Your task to perform on an android device: What is the price of a 12' ladder at Lowes? Image 0: 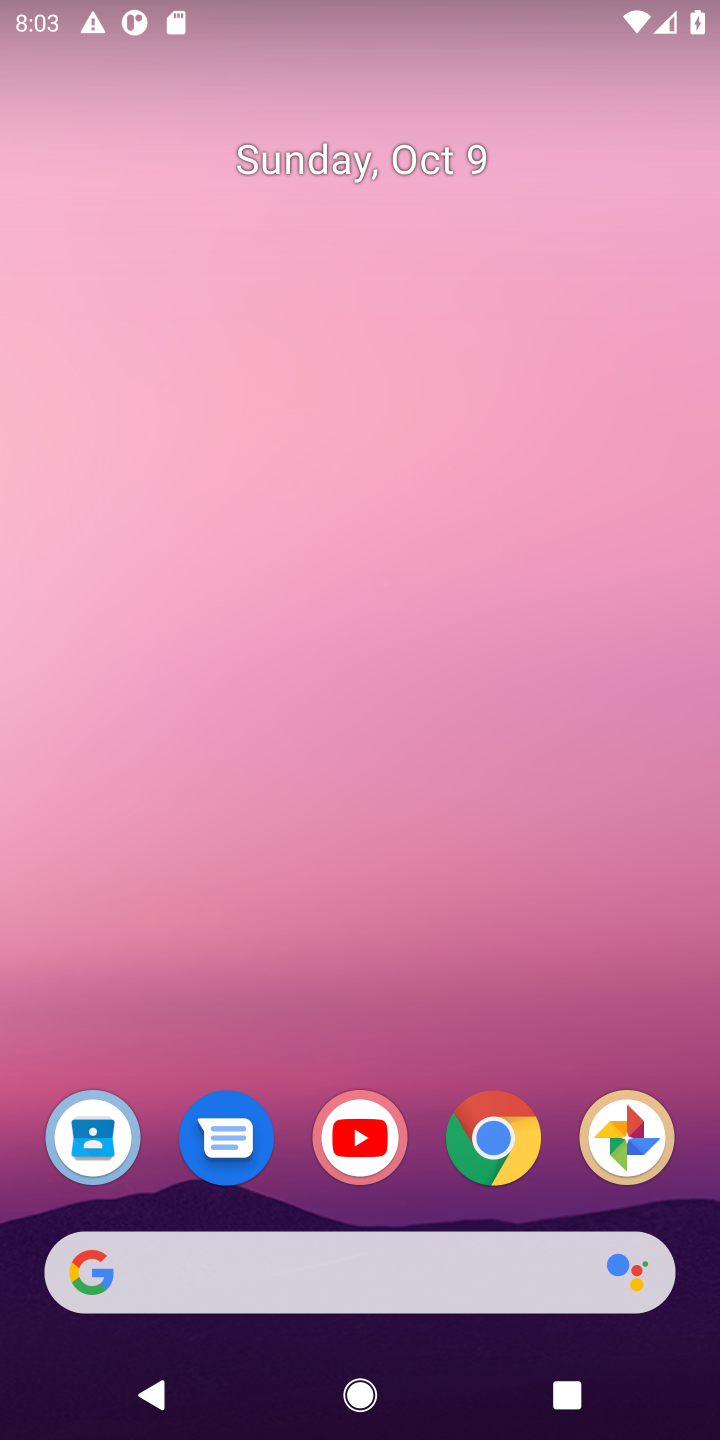
Step 0: drag from (348, 1257) to (456, 325)
Your task to perform on an android device: What is the price of a 12' ladder at Lowes? Image 1: 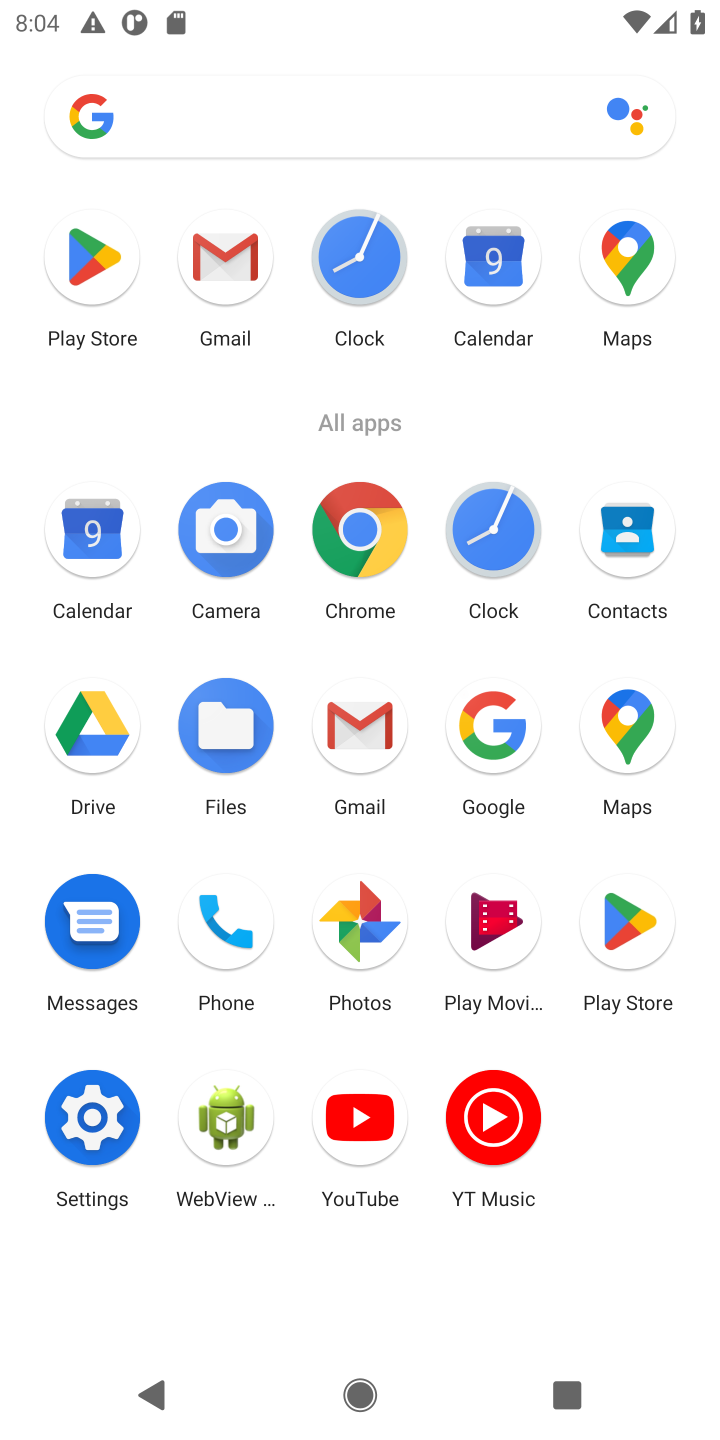
Step 1: click (489, 717)
Your task to perform on an android device: What is the price of a 12' ladder at Lowes? Image 2: 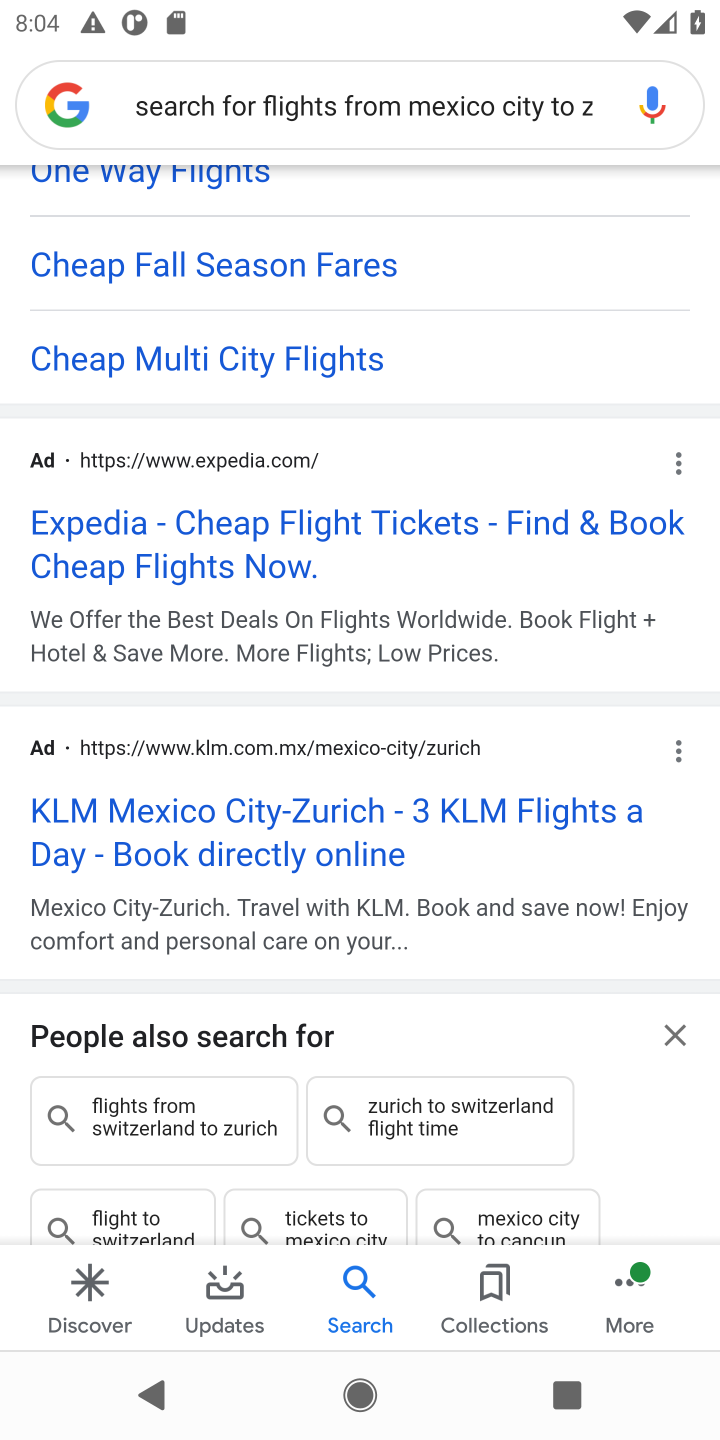
Step 2: click (515, 83)
Your task to perform on an android device: What is the price of a 12' ladder at Lowes? Image 3: 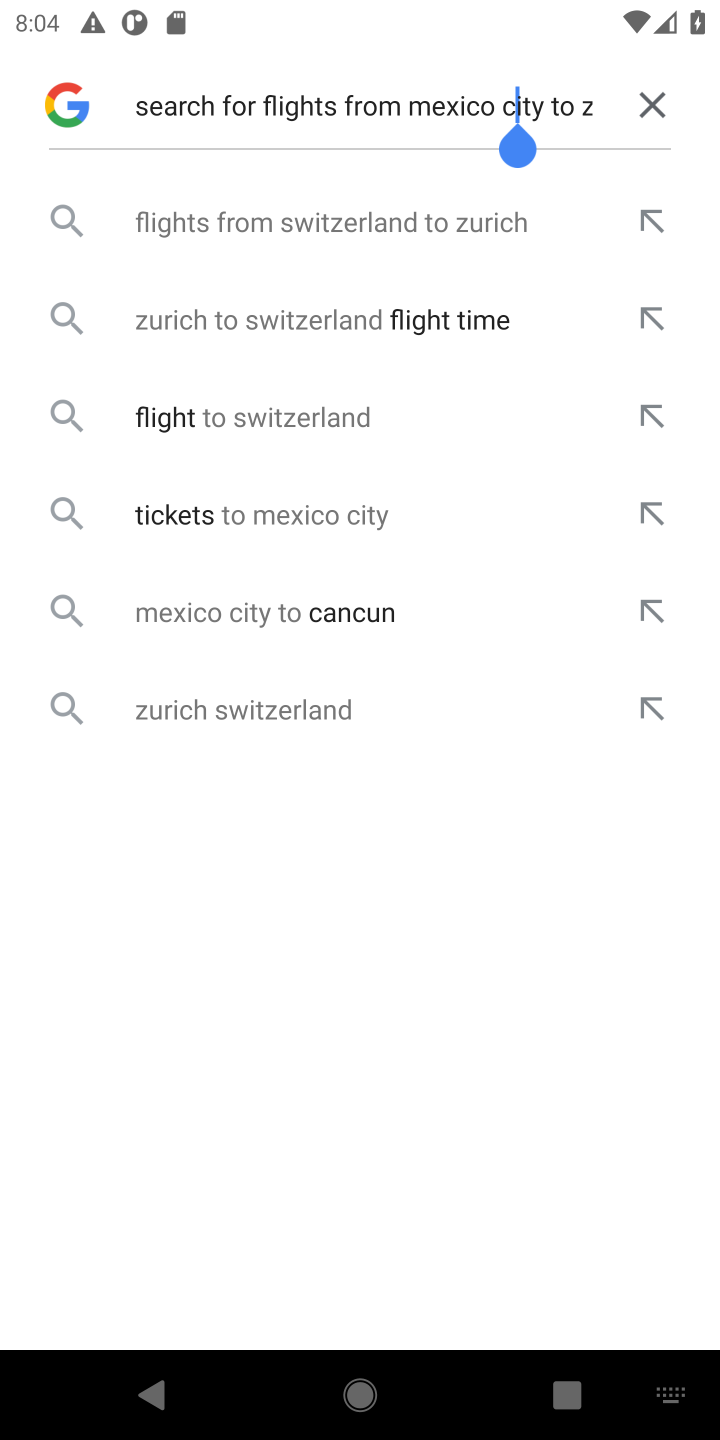
Step 3: click (640, 102)
Your task to perform on an android device: What is the price of a 12' ladder at Lowes? Image 4: 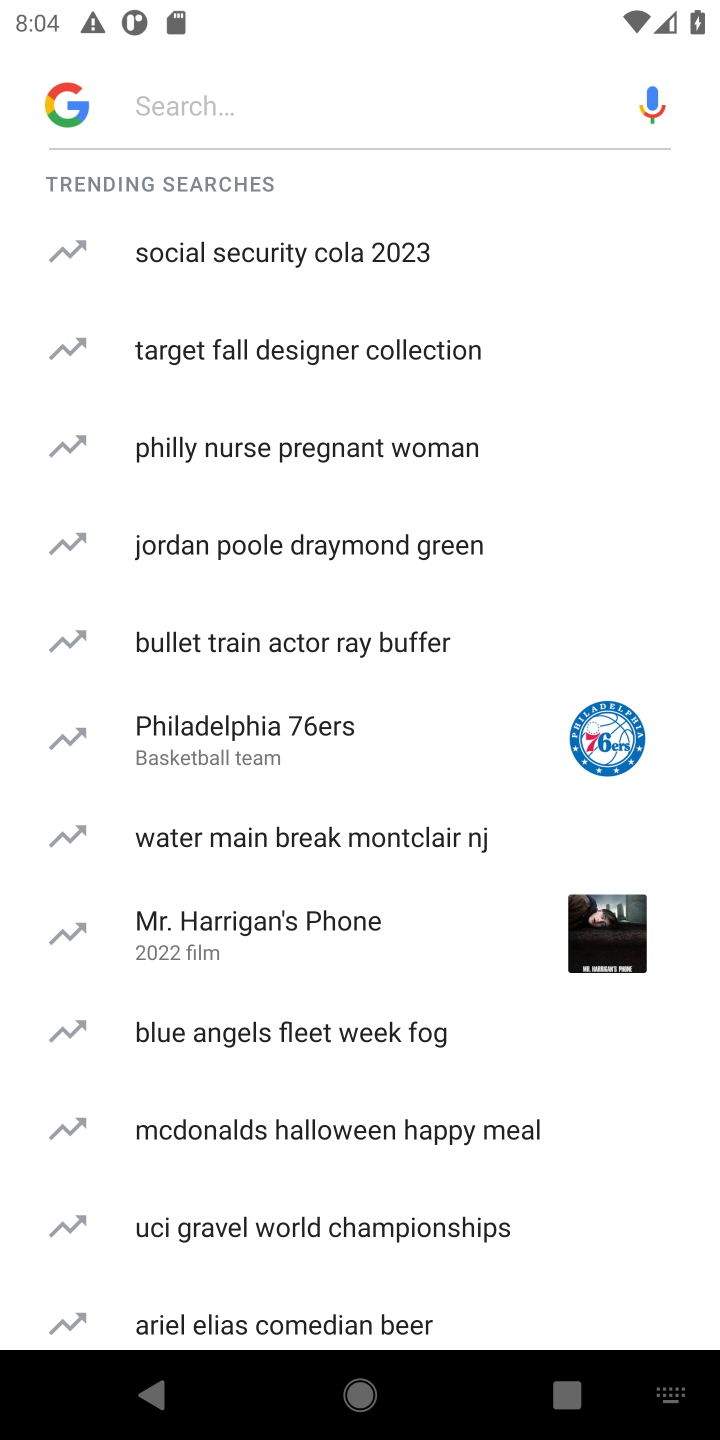
Step 4: click (299, 99)
Your task to perform on an android device: What is the price of a 12' ladder at Lowes? Image 5: 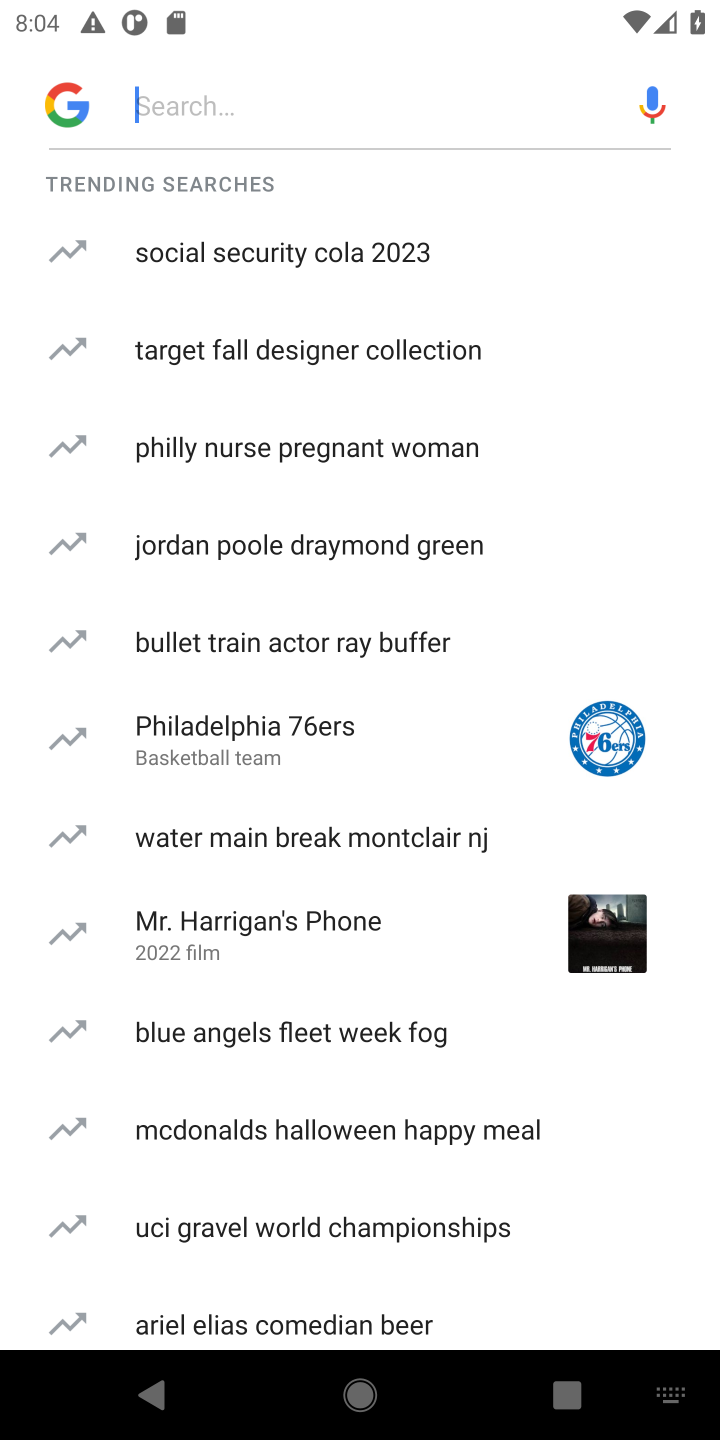
Step 5: type "What is the price of a 12' ladder at Lowes? "
Your task to perform on an android device: What is the price of a 12' ladder at Lowes? Image 6: 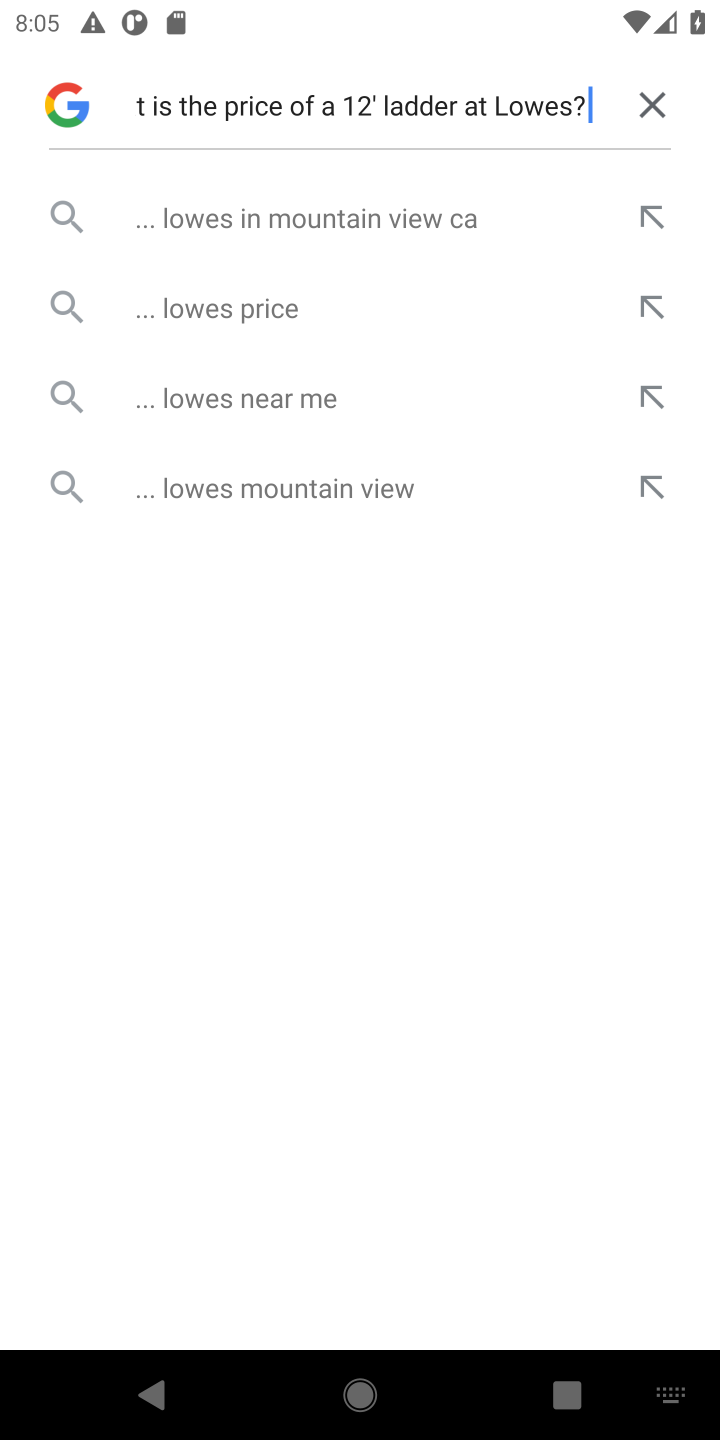
Step 6: click (316, 309)
Your task to perform on an android device: What is the price of a 12' ladder at Lowes? Image 7: 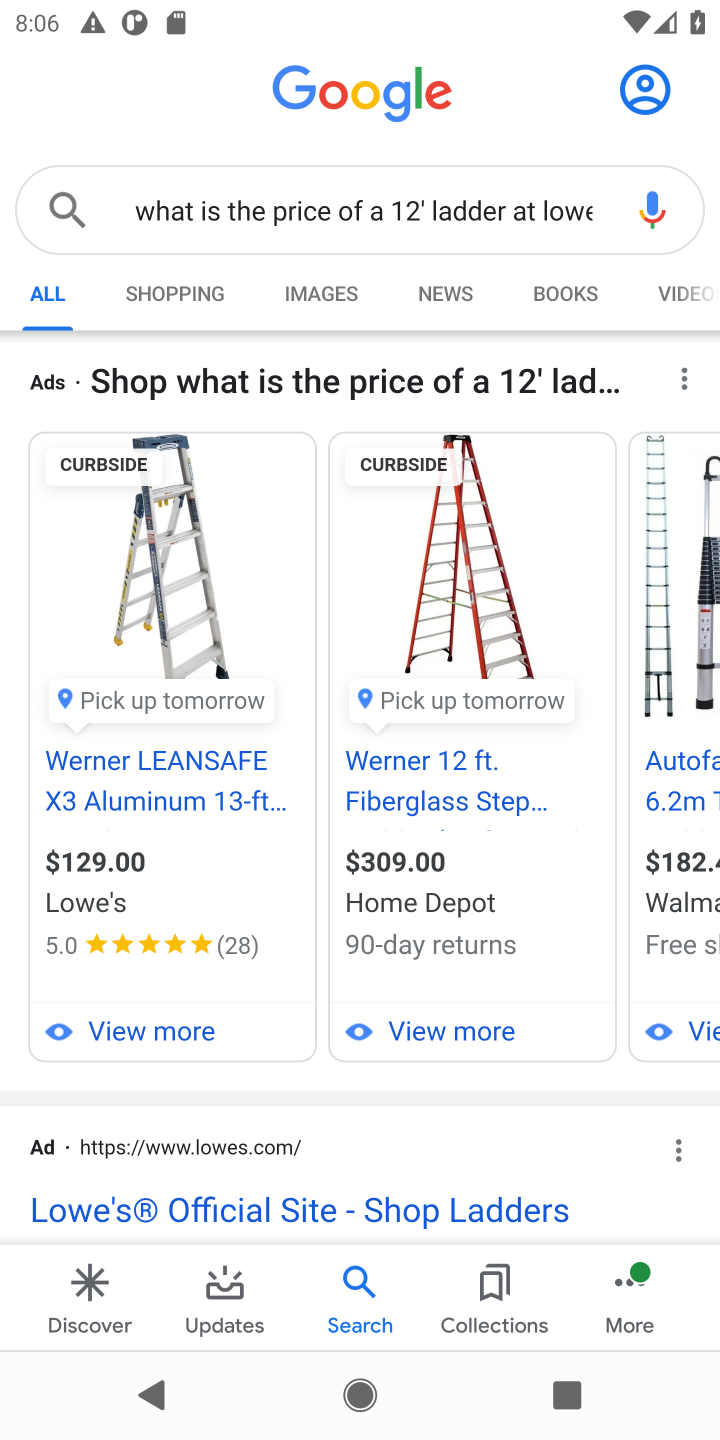
Step 7: task complete